Your task to perform on an android device: Go to Maps Image 0: 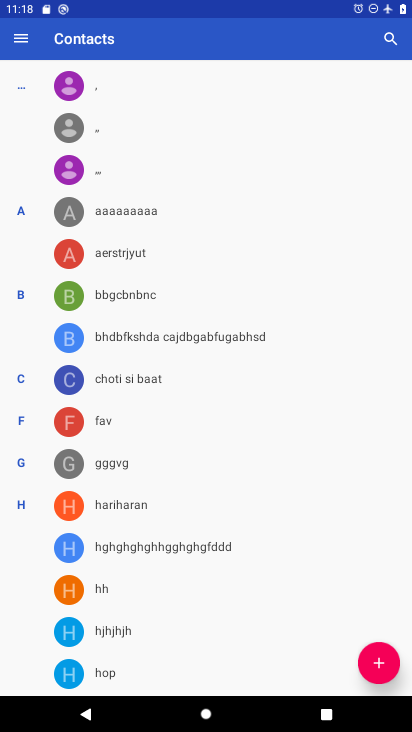
Step 0: press home button
Your task to perform on an android device: Go to Maps Image 1: 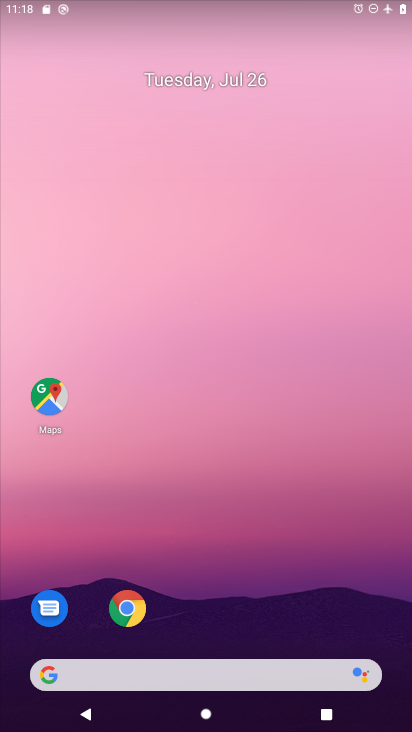
Step 1: drag from (305, 556) to (248, 57)
Your task to perform on an android device: Go to Maps Image 2: 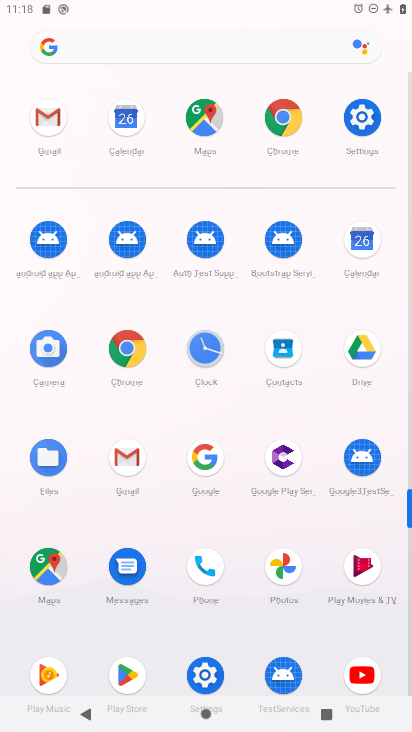
Step 2: click (207, 121)
Your task to perform on an android device: Go to Maps Image 3: 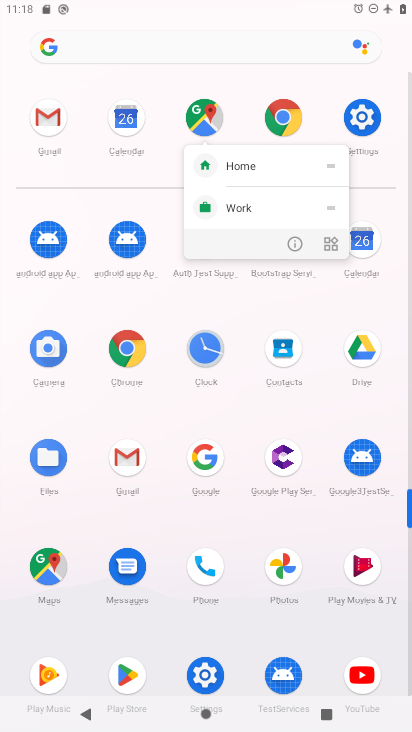
Step 3: click (213, 109)
Your task to perform on an android device: Go to Maps Image 4: 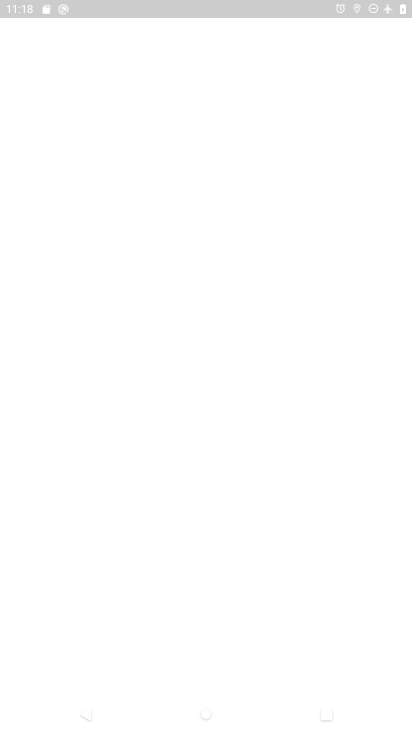
Step 4: task complete